Your task to perform on an android device: Open ESPN.com Image 0: 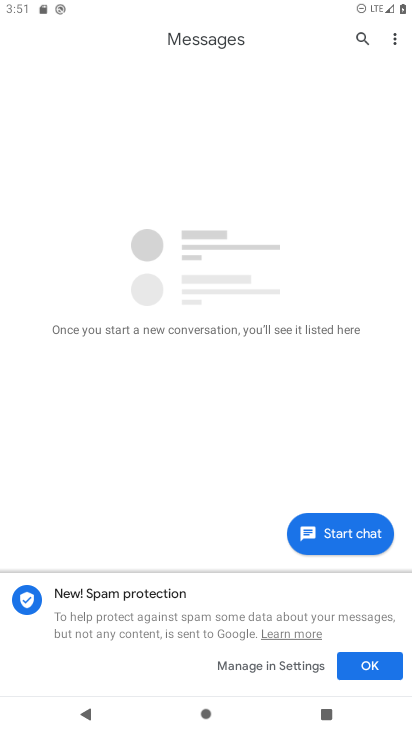
Step 0: press home button
Your task to perform on an android device: Open ESPN.com Image 1: 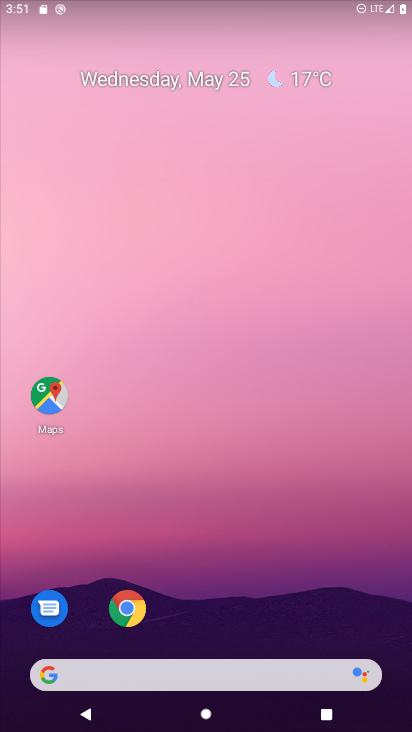
Step 1: click (129, 606)
Your task to perform on an android device: Open ESPN.com Image 2: 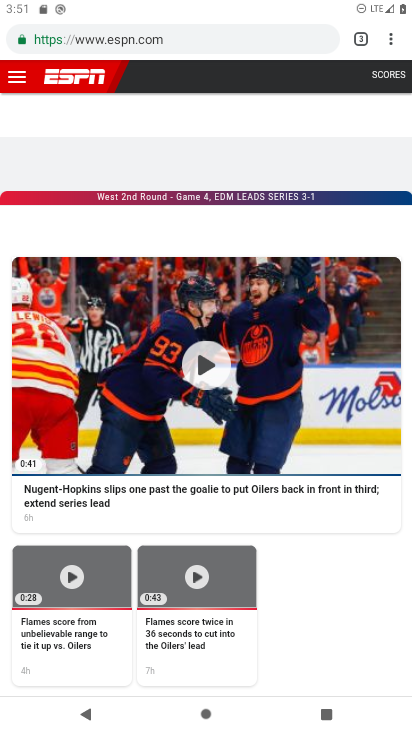
Step 2: task complete